Your task to perform on an android device: add a label to a message in the gmail app Image 0: 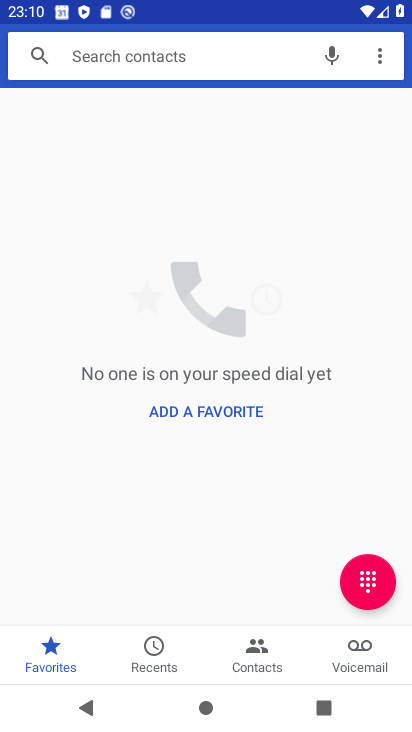
Step 0: press home button
Your task to perform on an android device: add a label to a message in the gmail app Image 1: 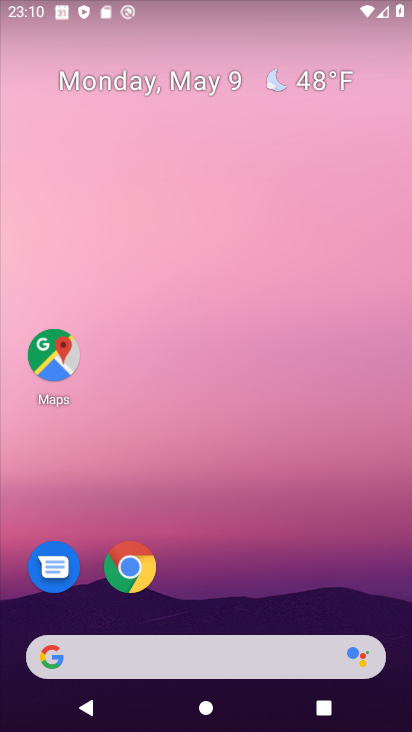
Step 1: drag from (229, 538) to (212, 122)
Your task to perform on an android device: add a label to a message in the gmail app Image 2: 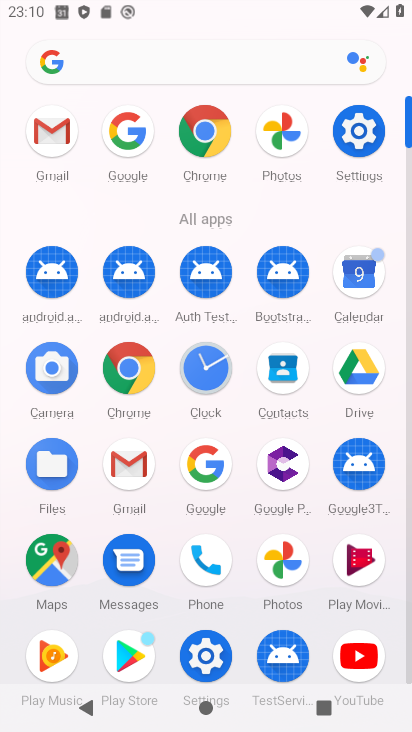
Step 2: click (52, 140)
Your task to perform on an android device: add a label to a message in the gmail app Image 3: 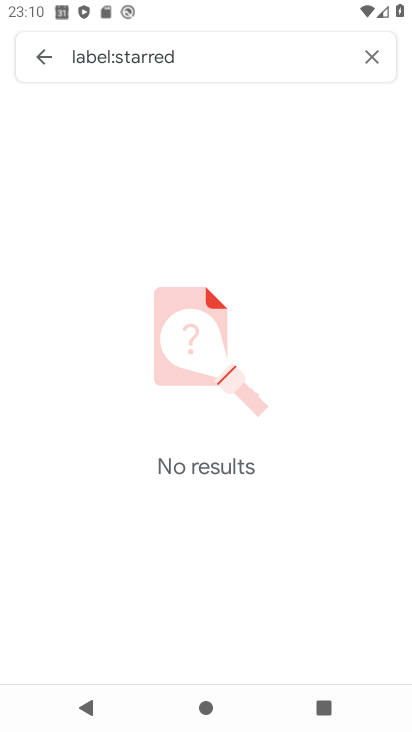
Step 3: press back button
Your task to perform on an android device: add a label to a message in the gmail app Image 4: 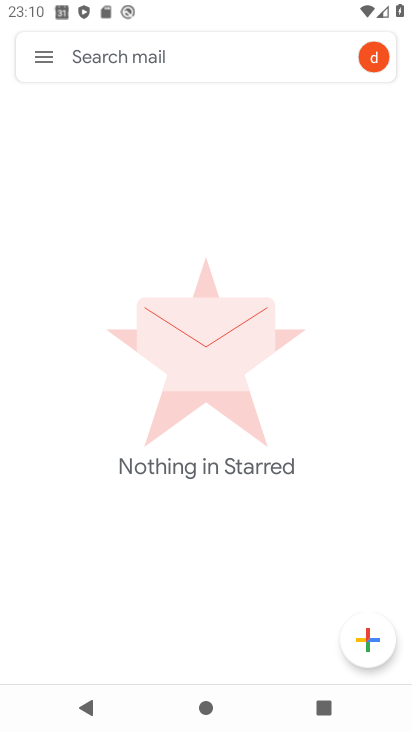
Step 4: click (42, 52)
Your task to perform on an android device: add a label to a message in the gmail app Image 5: 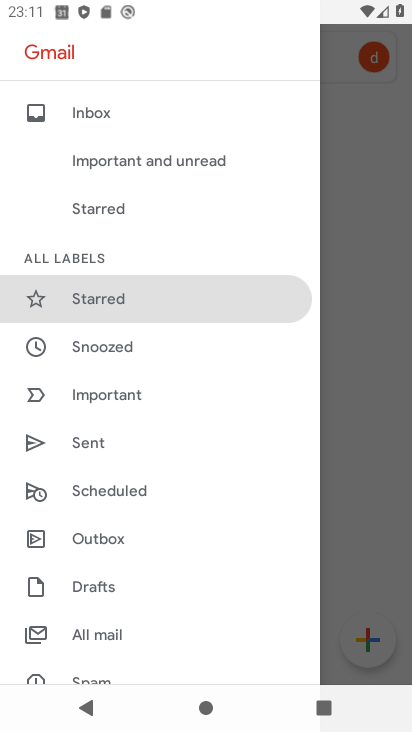
Step 5: click (81, 117)
Your task to perform on an android device: add a label to a message in the gmail app Image 6: 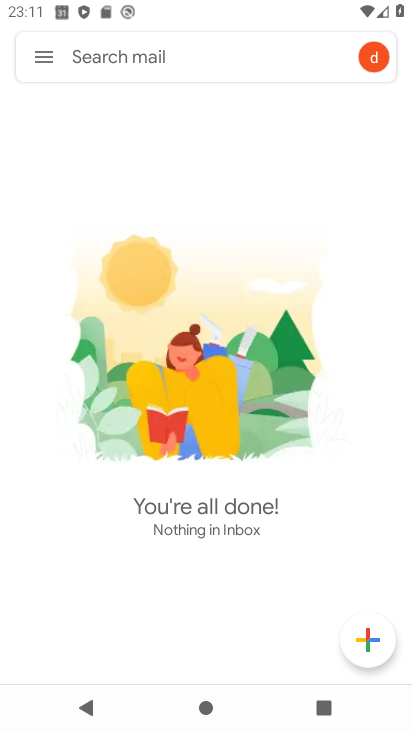
Step 6: click (47, 62)
Your task to perform on an android device: add a label to a message in the gmail app Image 7: 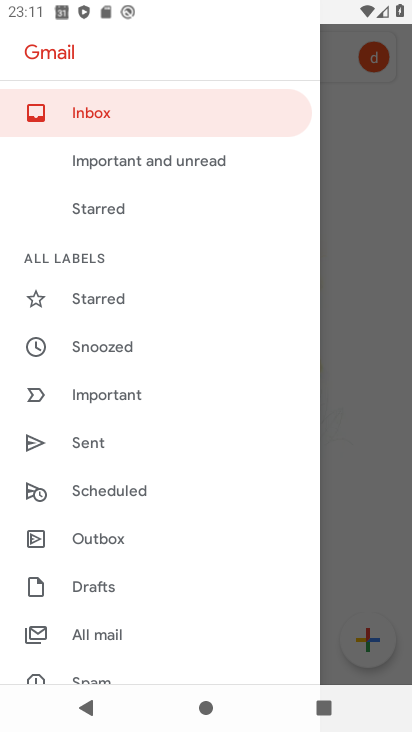
Step 7: click (92, 637)
Your task to perform on an android device: add a label to a message in the gmail app Image 8: 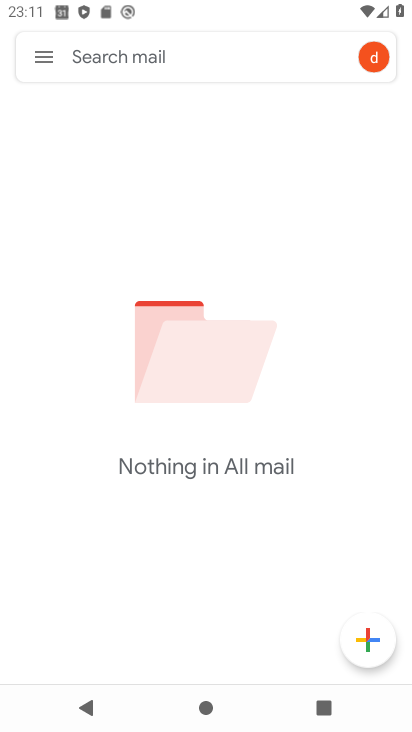
Step 8: task complete